Your task to perform on an android device: Show the shopping cart on walmart.com. Search for "energizer triple a" on walmart.com, select the first entry, add it to the cart, then select checkout. Image 0: 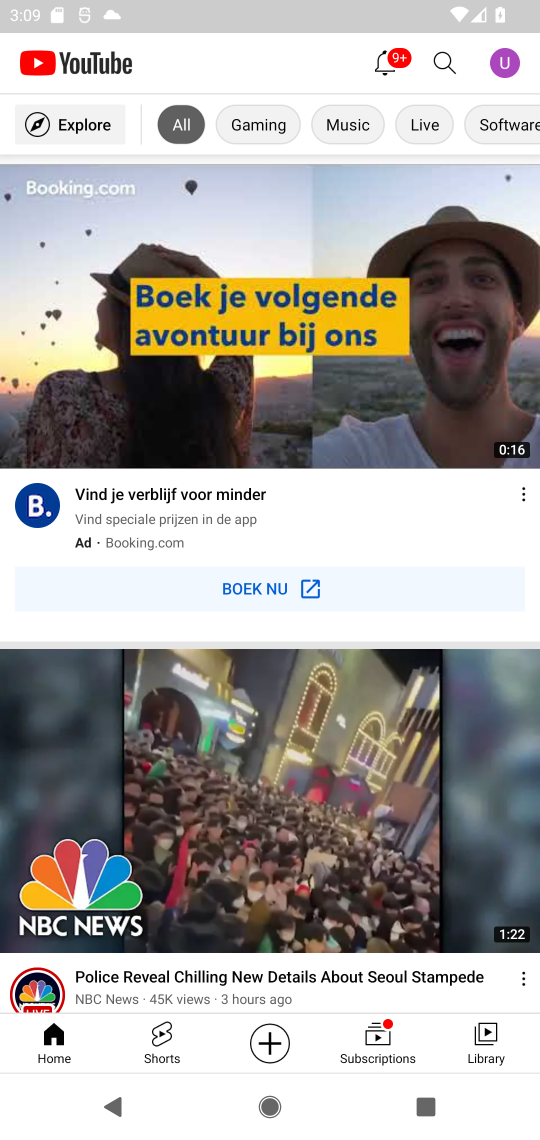
Step 0: press home button
Your task to perform on an android device: Show the shopping cart on walmart.com. Search for "energizer triple a" on walmart.com, select the first entry, add it to the cart, then select checkout. Image 1: 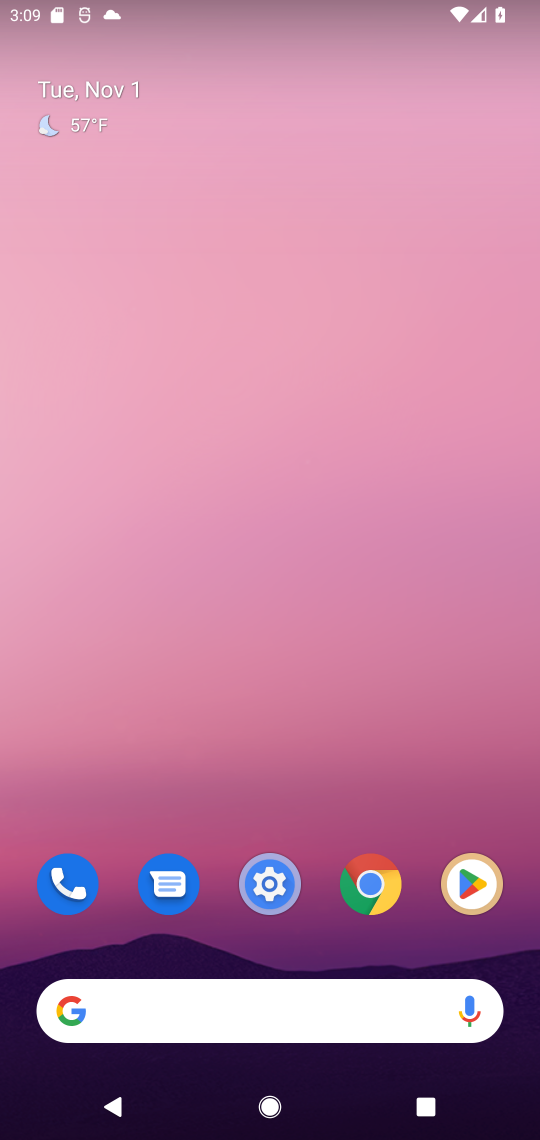
Step 1: click (97, 1018)
Your task to perform on an android device: Show the shopping cart on walmart.com. Search for "energizer triple a" on walmart.com, select the first entry, add it to the cart, then select checkout. Image 2: 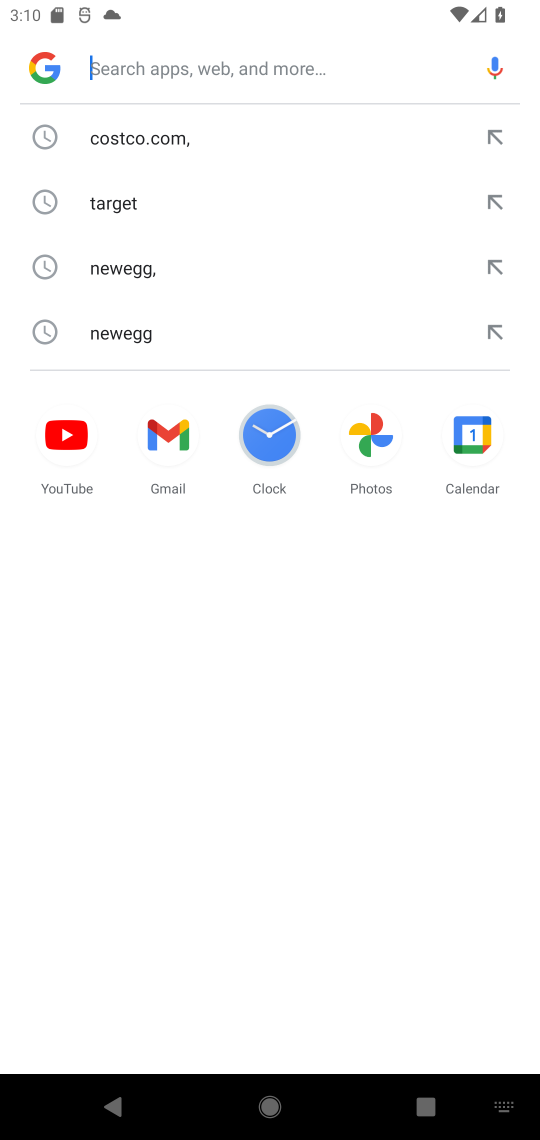
Step 2: type "walmart.com"
Your task to perform on an android device: Show the shopping cart on walmart.com. Search for "energizer triple a" on walmart.com, select the first entry, add it to the cart, then select checkout. Image 3: 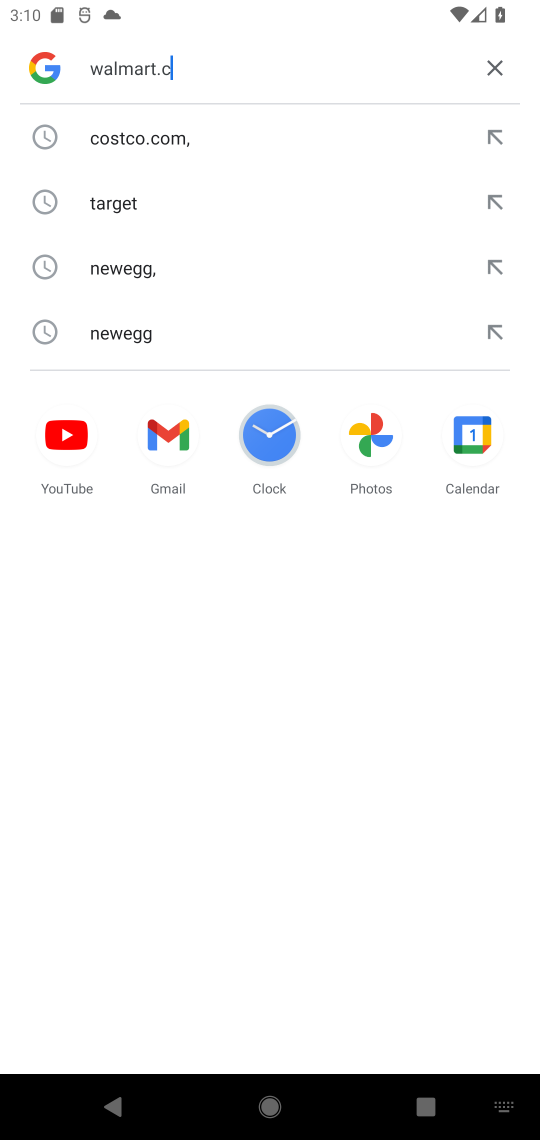
Step 3: press enter
Your task to perform on an android device: Show the shopping cart on walmart.com. Search for "energizer triple a" on walmart.com, select the first entry, add it to the cart, then select checkout. Image 4: 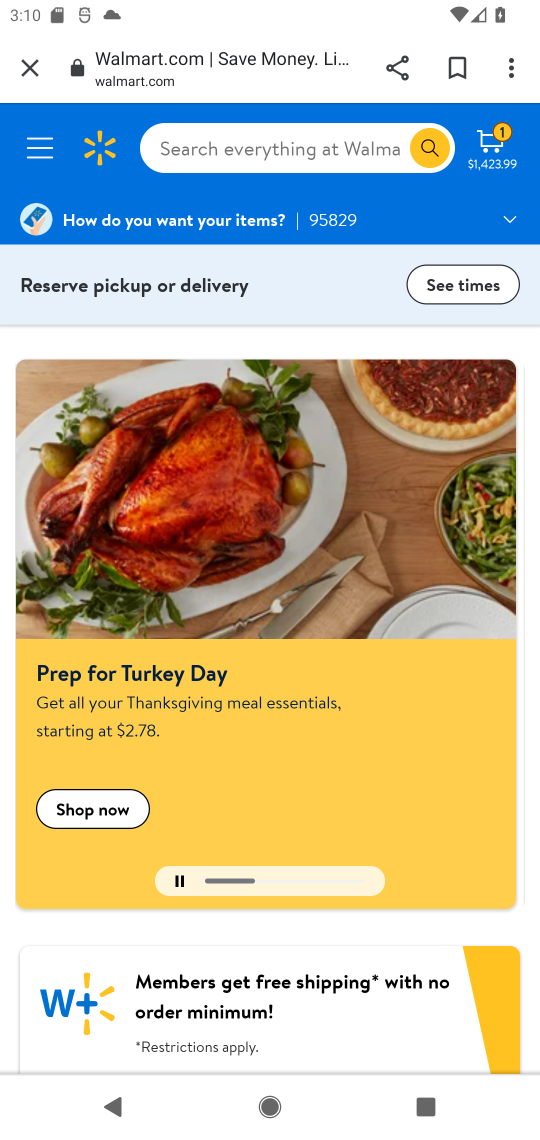
Step 4: click (492, 146)
Your task to perform on an android device: Show the shopping cart on walmart.com. Search for "energizer triple a" on walmart.com, select the first entry, add it to the cart, then select checkout. Image 5: 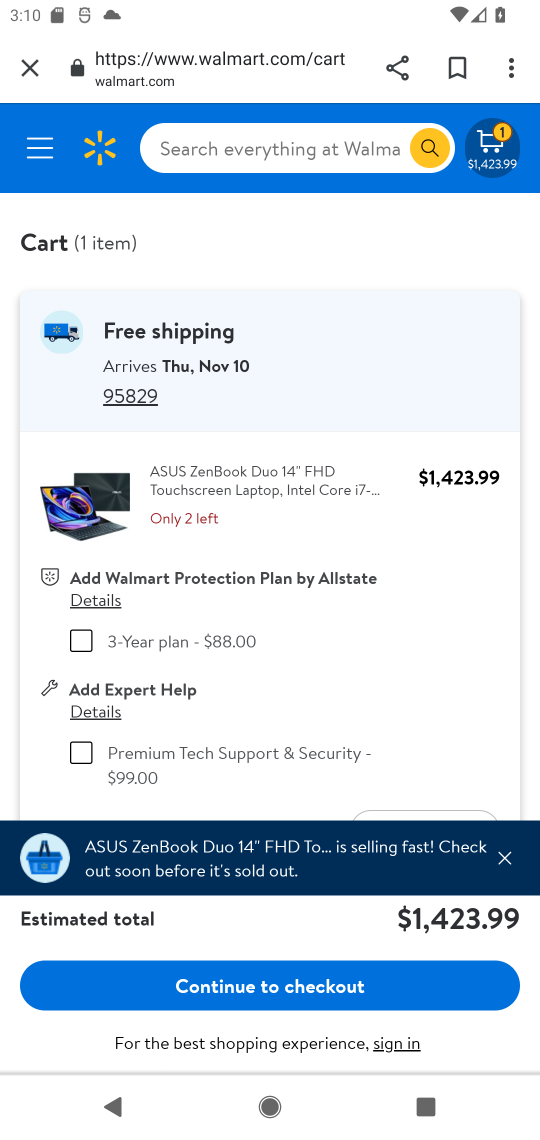
Step 5: click (205, 147)
Your task to perform on an android device: Show the shopping cart on walmart.com. Search for "energizer triple a" on walmart.com, select the first entry, add it to the cart, then select checkout. Image 6: 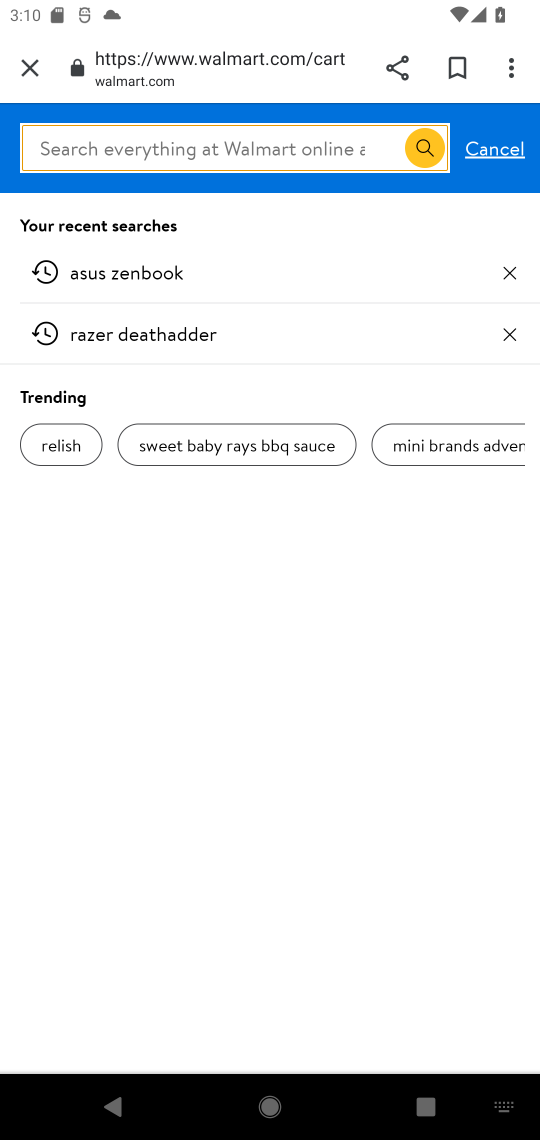
Step 6: type "energizer triple a"
Your task to perform on an android device: Show the shopping cart on walmart.com. Search for "energizer triple a" on walmart.com, select the first entry, add it to the cart, then select checkout. Image 7: 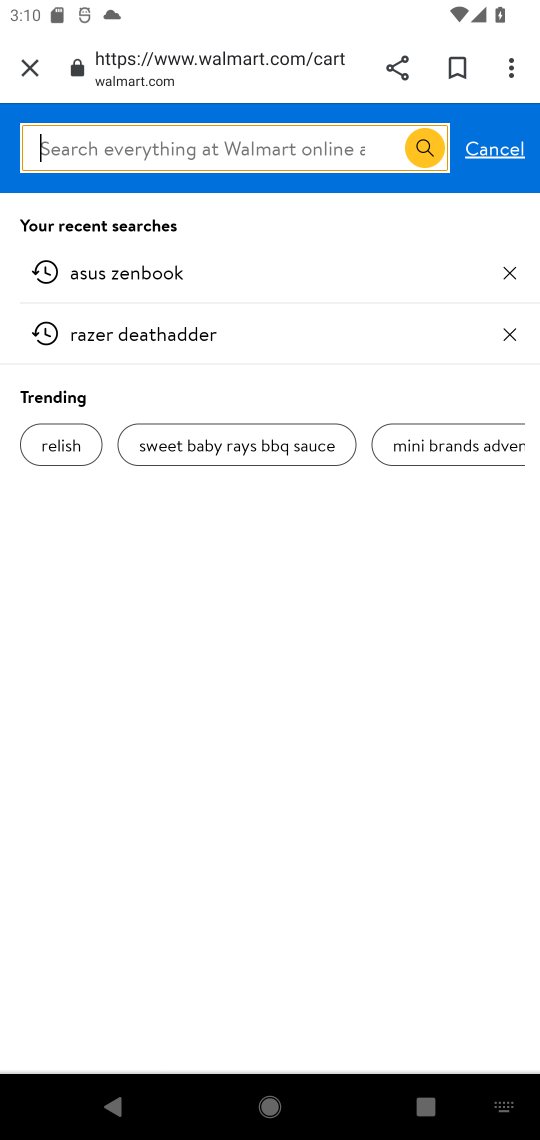
Step 7: press enter
Your task to perform on an android device: Show the shopping cart on walmart.com. Search for "energizer triple a" on walmart.com, select the first entry, add it to the cart, then select checkout. Image 8: 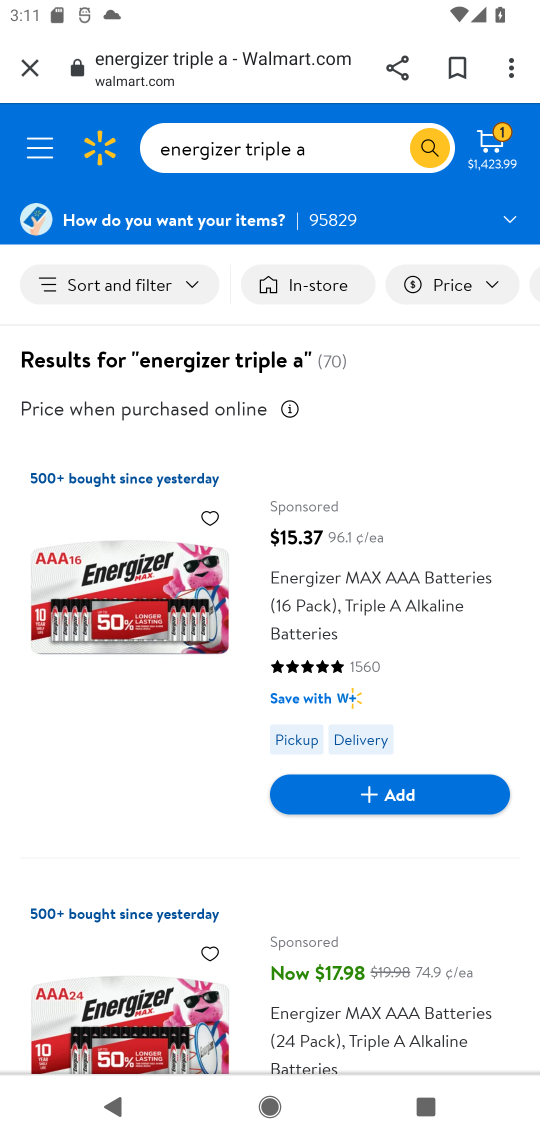
Step 8: drag from (377, 893) to (390, 556)
Your task to perform on an android device: Show the shopping cart on walmart.com. Search for "energizer triple a" on walmart.com, select the first entry, add it to the cart, then select checkout. Image 9: 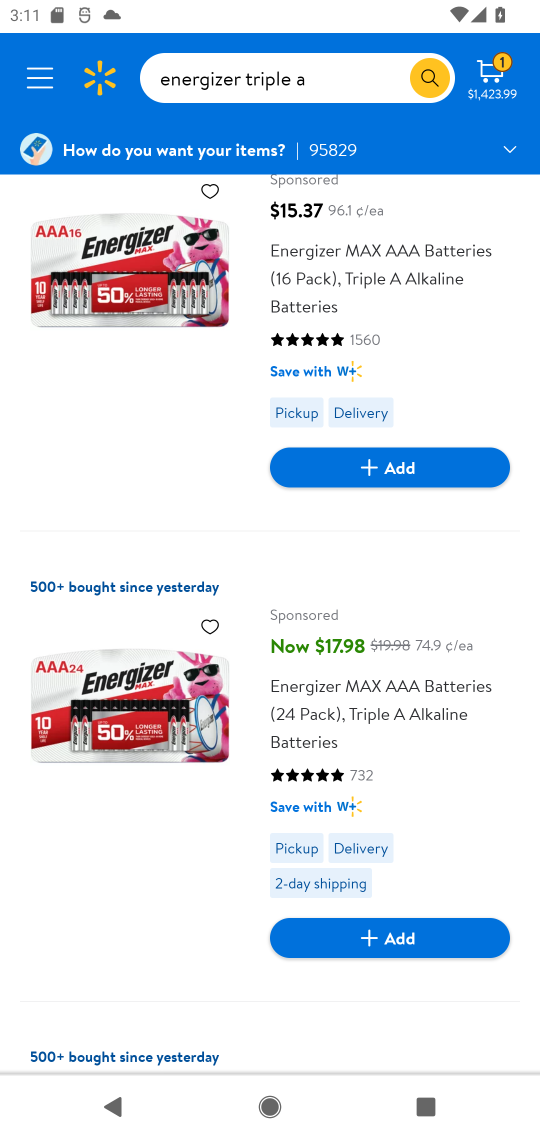
Step 9: drag from (366, 816) to (354, 442)
Your task to perform on an android device: Show the shopping cart on walmart.com. Search for "energizer triple a" on walmart.com, select the first entry, add it to the cart, then select checkout. Image 10: 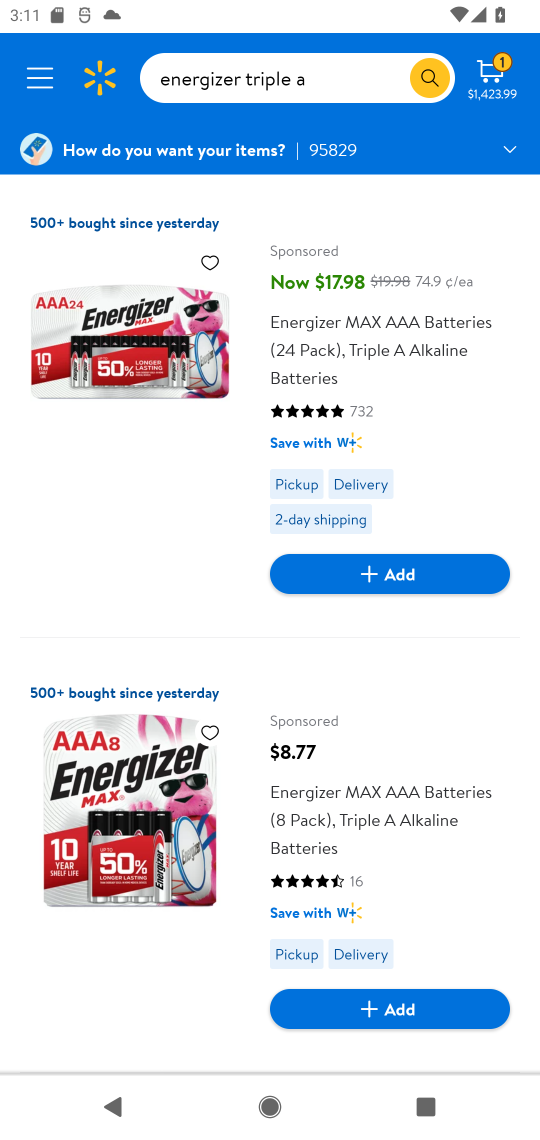
Step 10: drag from (366, 839) to (370, 476)
Your task to perform on an android device: Show the shopping cart on walmart.com. Search for "energizer triple a" on walmart.com, select the first entry, add it to the cart, then select checkout. Image 11: 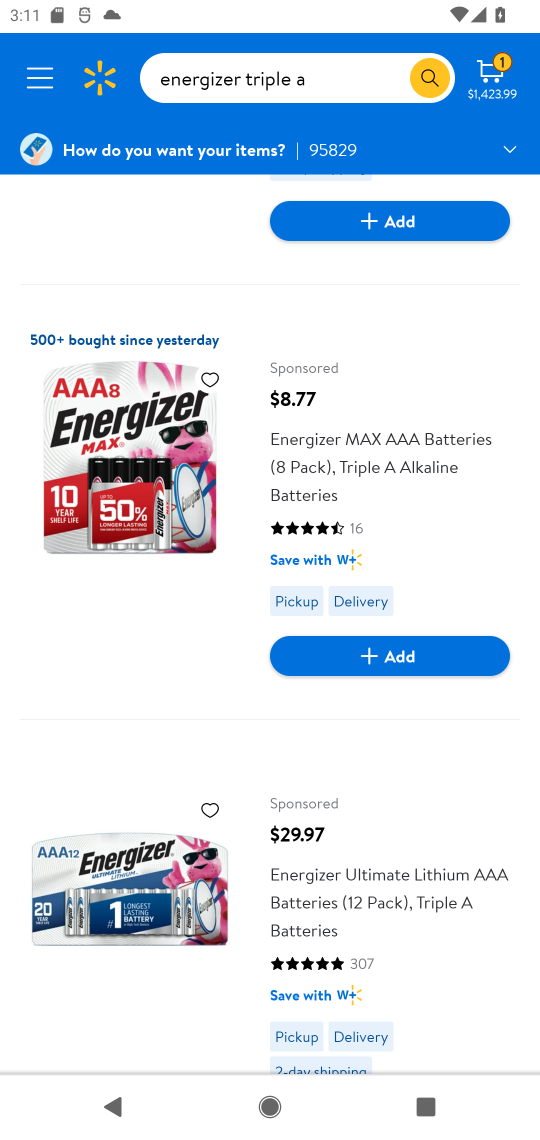
Step 11: drag from (350, 931) to (354, 581)
Your task to perform on an android device: Show the shopping cart on walmart.com. Search for "energizer triple a" on walmart.com, select the first entry, add it to the cart, then select checkout. Image 12: 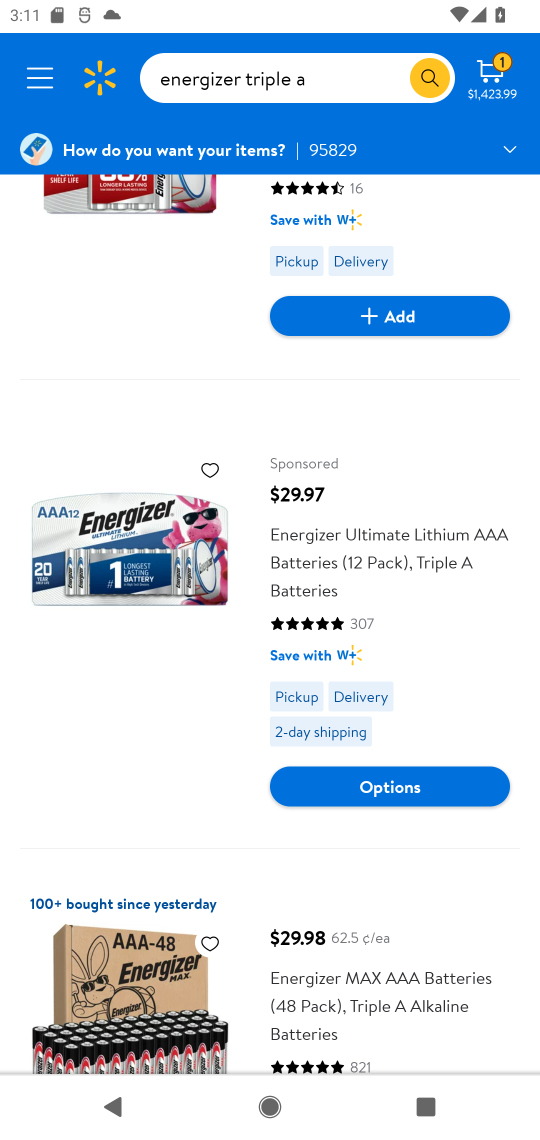
Step 12: drag from (269, 941) to (279, 527)
Your task to perform on an android device: Show the shopping cart on walmart.com. Search for "energizer triple a" on walmart.com, select the first entry, add it to the cart, then select checkout. Image 13: 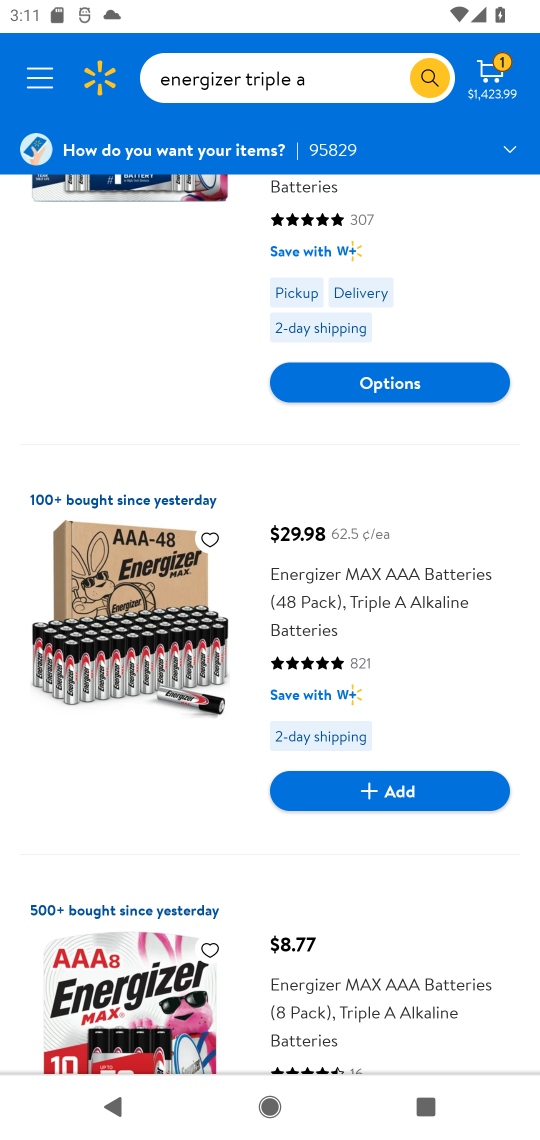
Step 13: drag from (334, 1016) to (344, 644)
Your task to perform on an android device: Show the shopping cart on walmart.com. Search for "energizer triple a" on walmart.com, select the first entry, add it to the cart, then select checkout. Image 14: 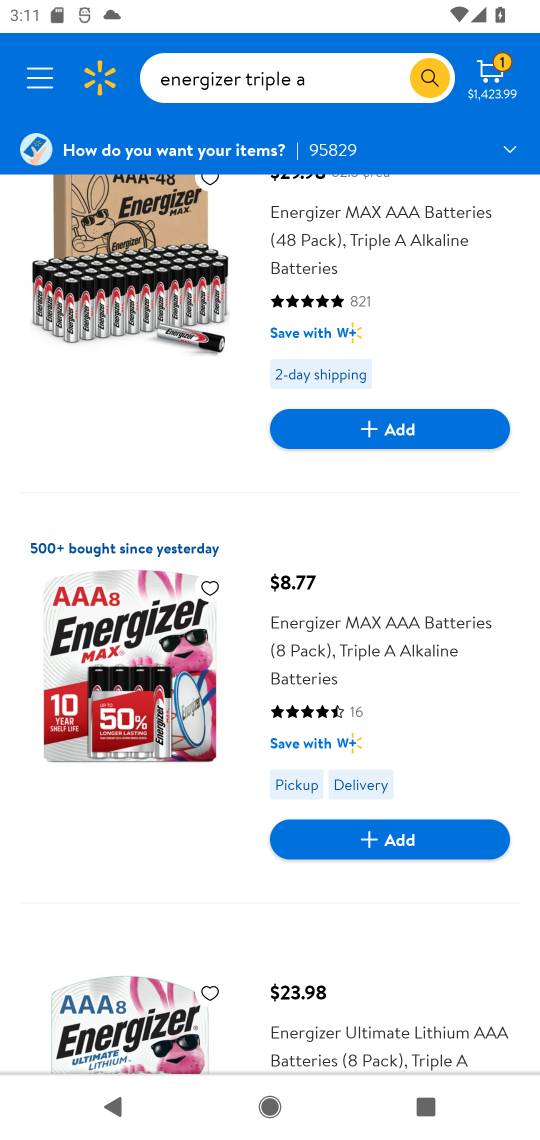
Step 14: click (400, 842)
Your task to perform on an android device: Show the shopping cart on walmart.com. Search for "energizer triple a" on walmart.com, select the first entry, add it to the cart, then select checkout. Image 15: 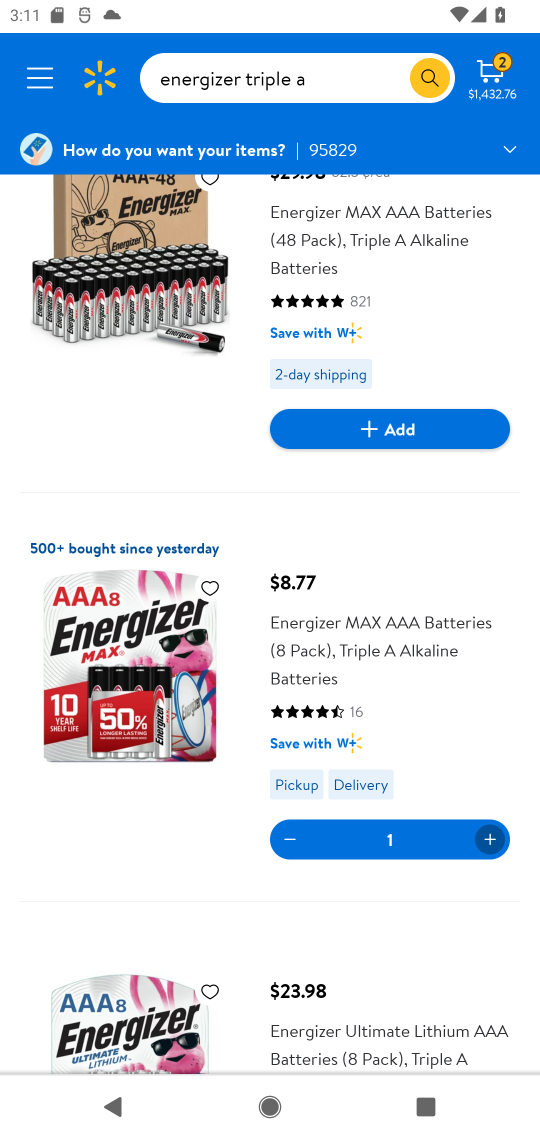
Step 15: click (495, 63)
Your task to perform on an android device: Show the shopping cart on walmart.com. Search for "energizer triple a" on walmart.com, select the first entry, add it to the cart, then select checkout. Image 16: 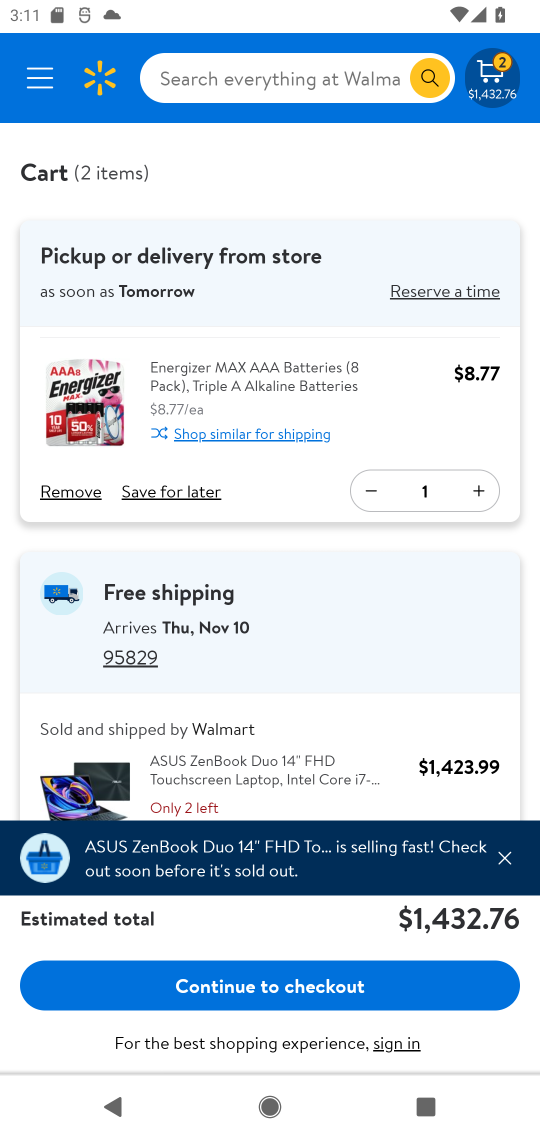
Step 16: click (246, 988)
Your task to perform on an android device: Show the shopping cart on walmart.com. Search for "energizer triple a" on walmart.com, select the first entry, add it to the cart, then select checkout. Image 17: 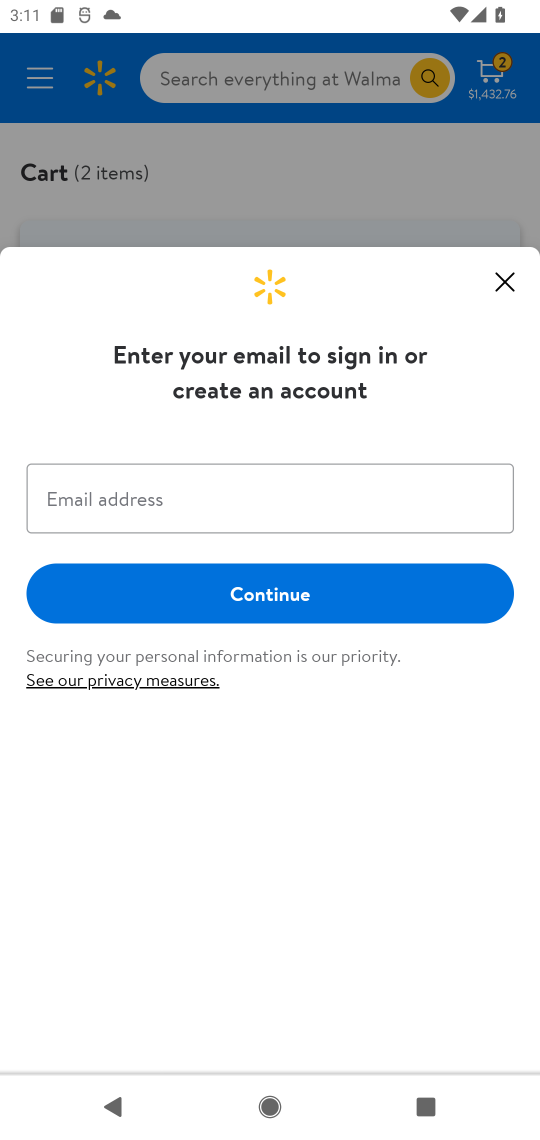
Step 17: task complete